Your task to perform on an android device: make emails show in primary in the gmail app Image 0: 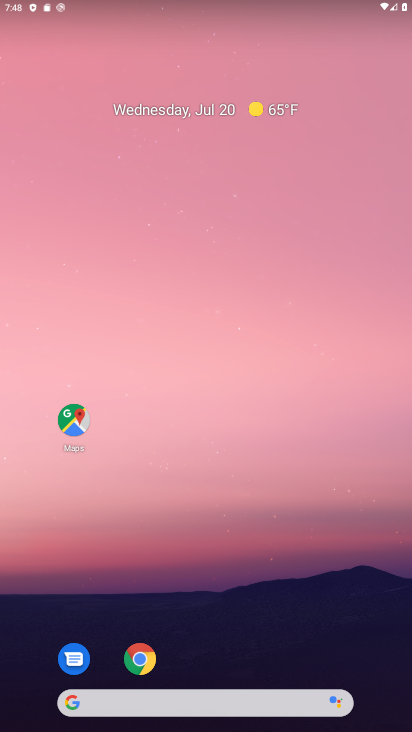
Step 0: drag from (300, 692) to (362, 9)
Your task to perform on an android device: make emails show in primary in the gmail app Image 1: 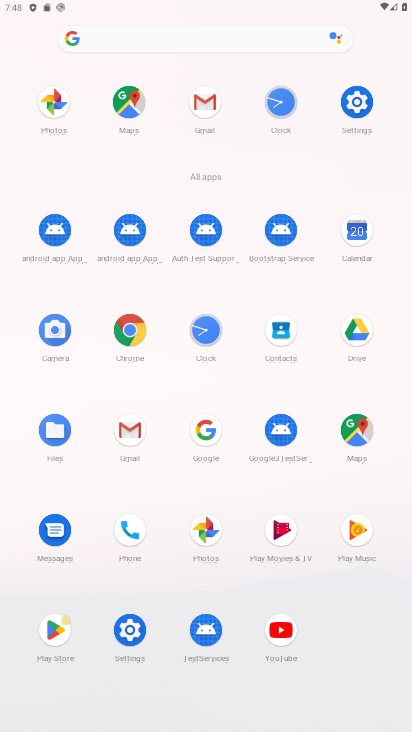
Step 1: click (135, 436)
Your task to perform on an android device: make emails show in primary in the gmail app Image 2: 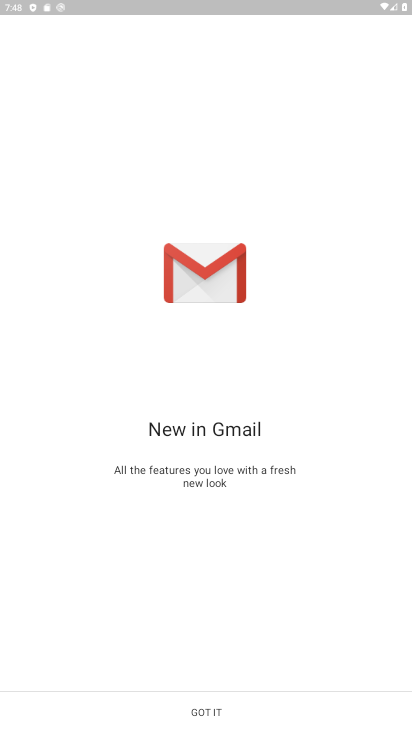
Step 2: click (215, 713)
Your task to perform on an android device: make emails show in primary in the gmail app Image 3: 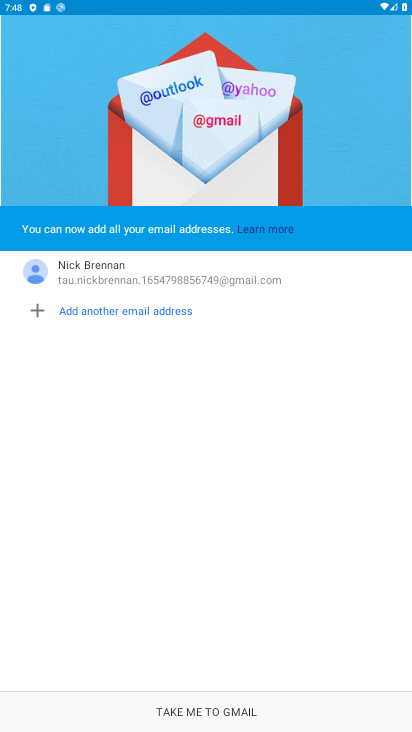
Step 3: click (254, 709)
Your task to perform on an android device: make emails show in primary in the gmail app Image 4: 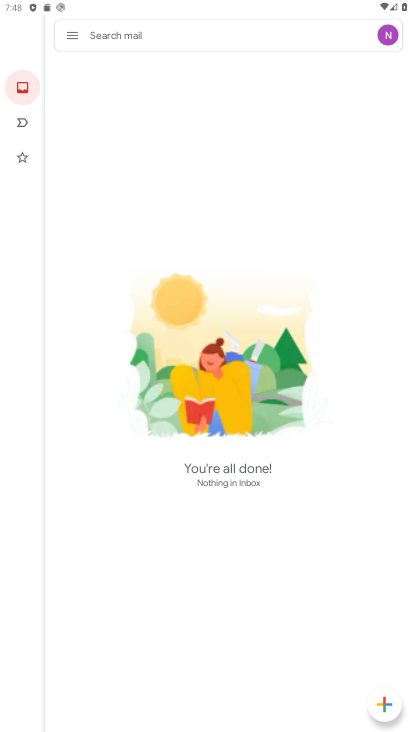
Step 4: task complete